Your task to perform on an android device: Go to eBay Image 0: 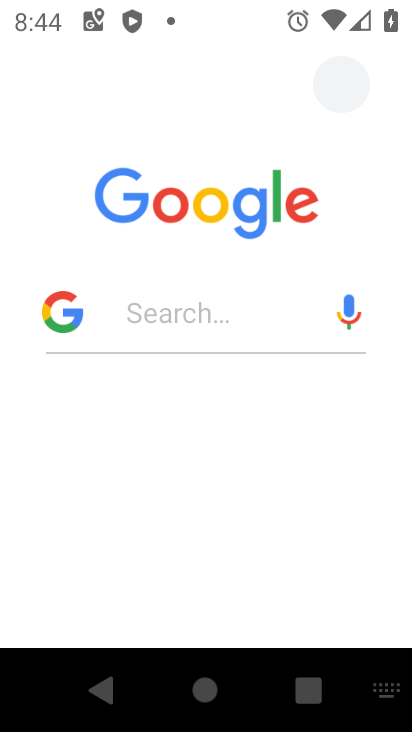
Step 0: press home button
Your task to perform on an android device: Go to eBay Image 1: 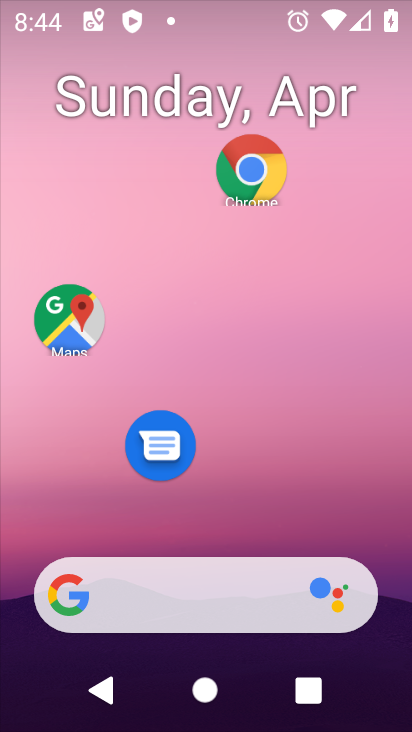
Step 1: drag from (253, 492) to (322, 16)
Your task to perform on an android device: Go to eBay Image 2: 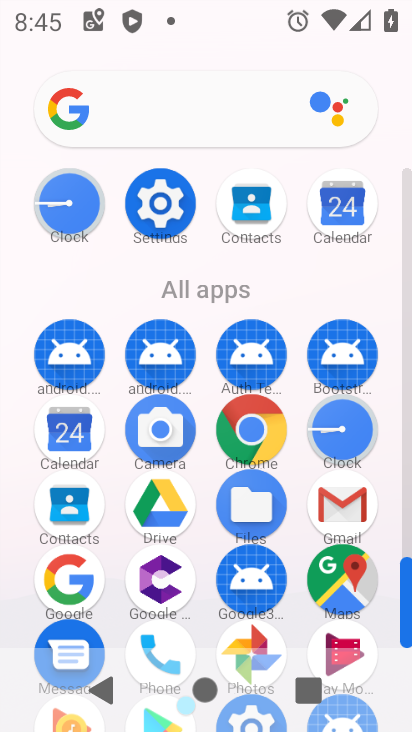
Step 2: click (73, 583)
Your task to perform on an android device: Go to eBay Image 3: 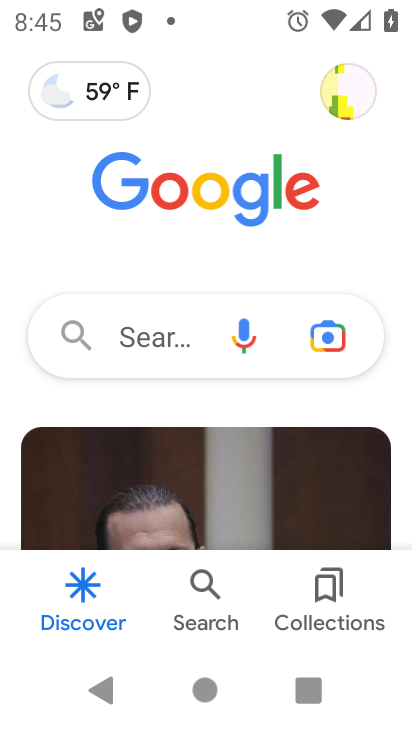
Step 3: click (143, 340)
Your task to perform on an android device: Go to eBay Image 4: 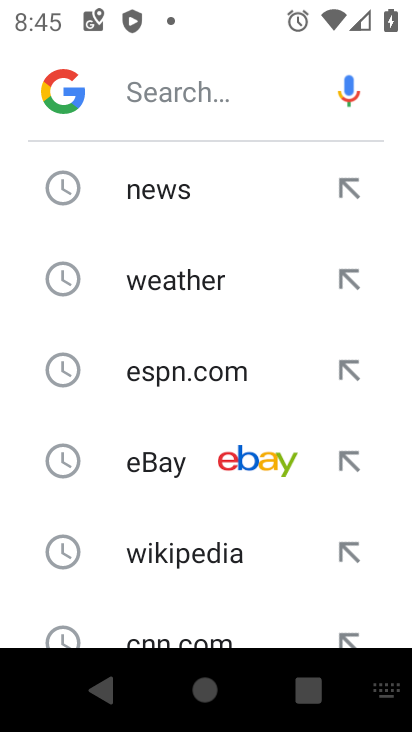
Step 4: click (167, 469)
Your task to perform on an android device: Go to eBay Image 5: 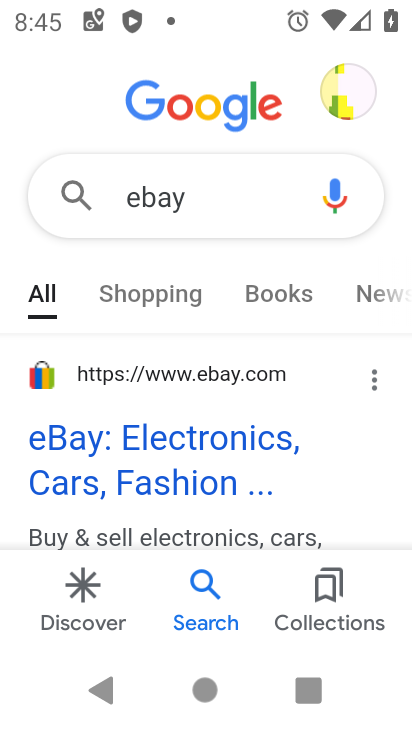
Step 5: task complete